Your task to perform on an android device: Toggle the flashlight Image 0: 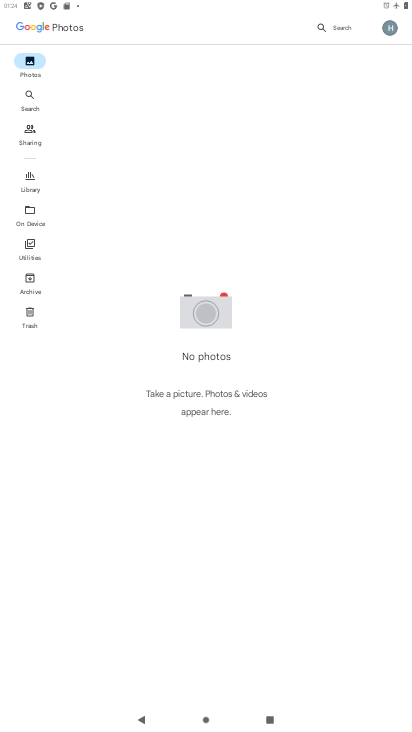
Step 0: press home button
Your task to perform on an android device: Toggle the flashlight Image 1: 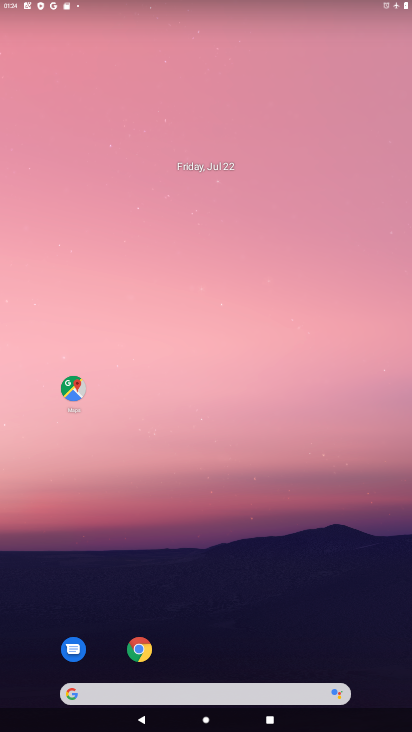
Step 1: drag from (291, 632) to (284, 98)
Your task to perform on an android device: Toggle the flashlight Image 2: 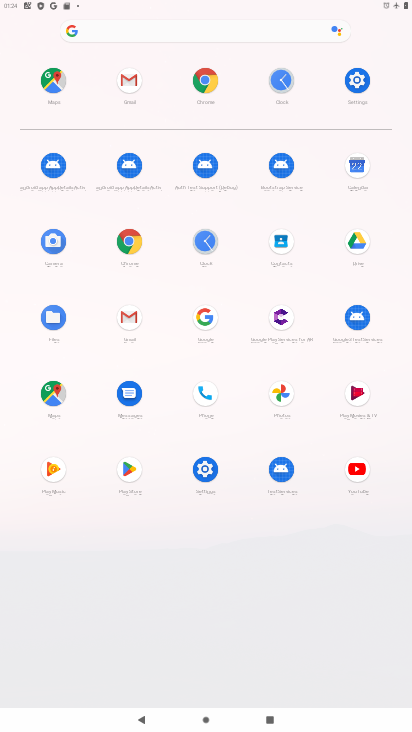
Step 2: click (360, 75)
Your task to perform on an android device: Toggle the flashlight Image 3: 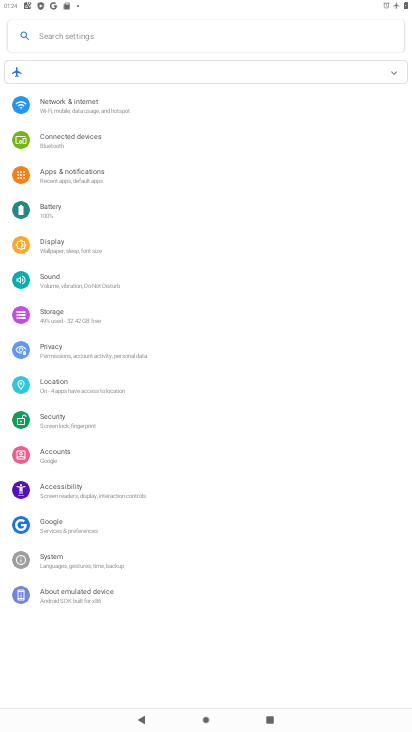
Step 3: click (64, 251)
Your task to perform on an android device: Toggle the flashlight Image 4: 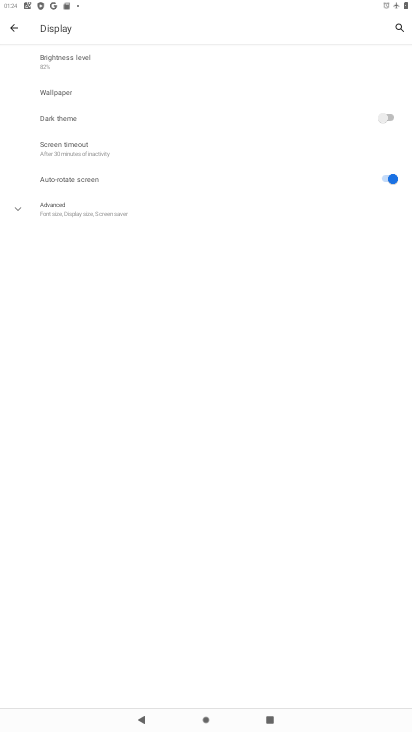
Step 4: click (82, 145)
Your task to perform on an android device: Toggle the flashlight Image 5: 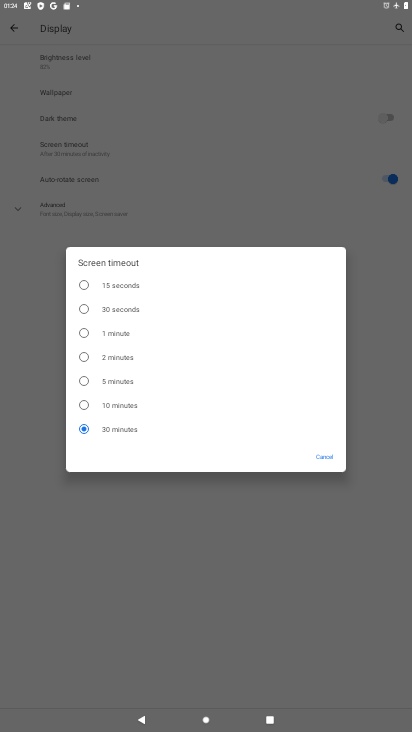
Step 5: task complete